Your task to perform on an android device: turn on javascript in the chrome app Image 0: 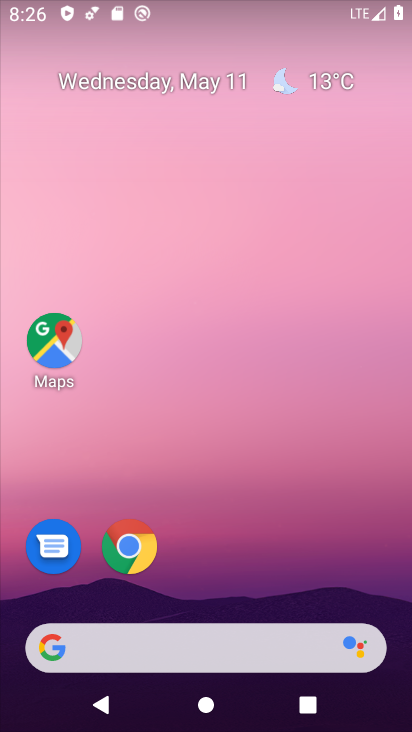
Step 0: click (124, 536)
Your task to perform on an android device: turn on javascript in the chrome app Image 1: 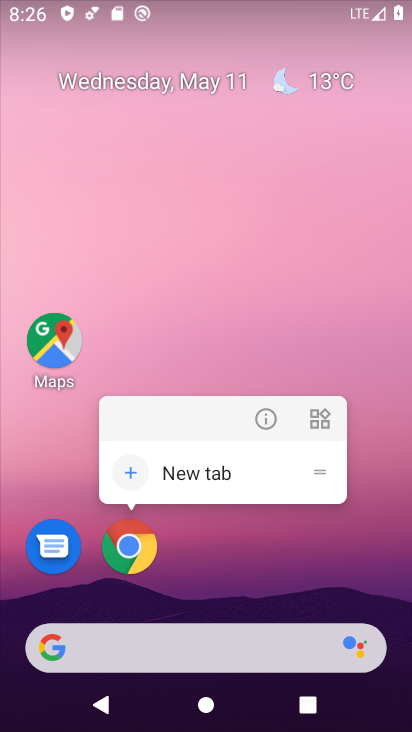
Step 1: click (132, 540)
Your task to perform on an android device: turn on javascript in the chrome app Image 2: 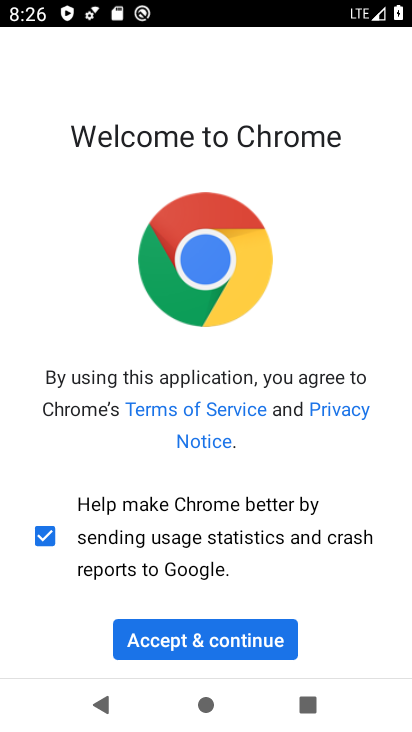
Step 2: click (171, 639)
Your task to perform on an android device: turn on javascript in the chrome app Image 3: 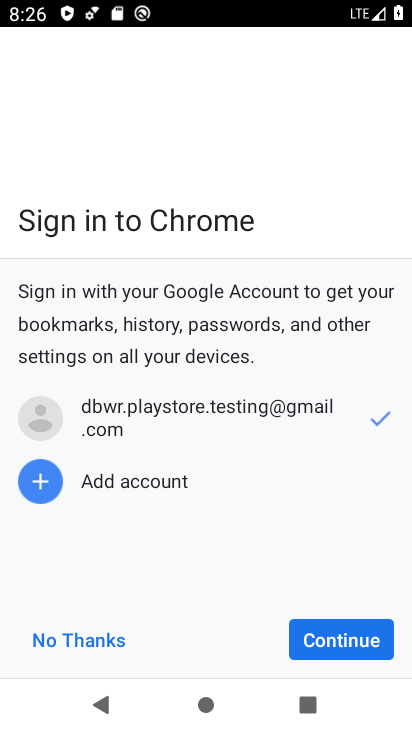
Step 3: click (346, 638)
Your task to perform on an android device: turn on javascript in the chrome app Image 4: 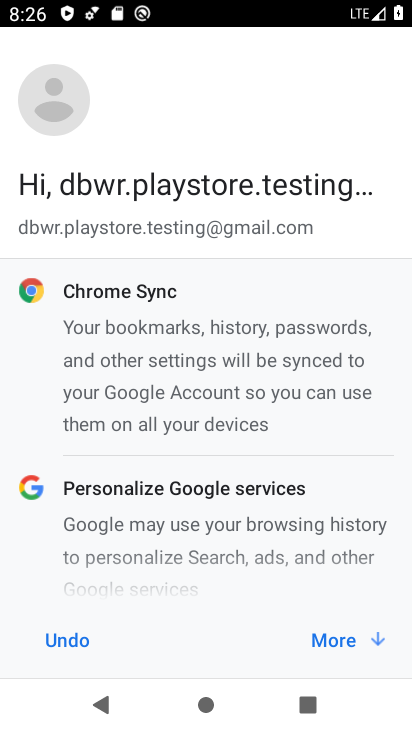
Step 4: click (320, 634)
Your task to perform on an android device: turn on javascript in the chrome app Image 5: 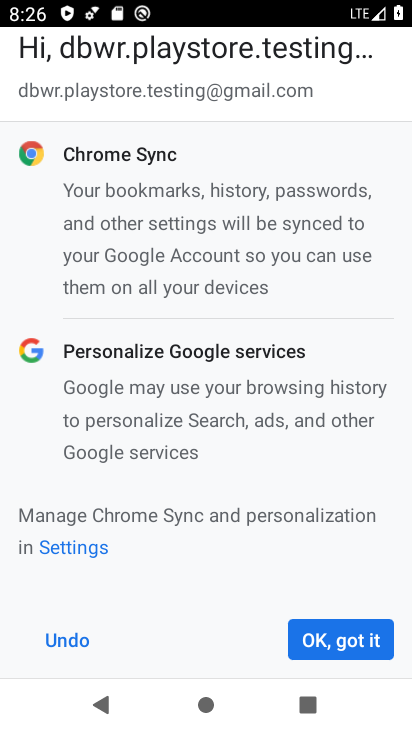
Step 5: click (356, 621)
Your task to perform on an android device: turn on javascript in the chrome app Image 6: 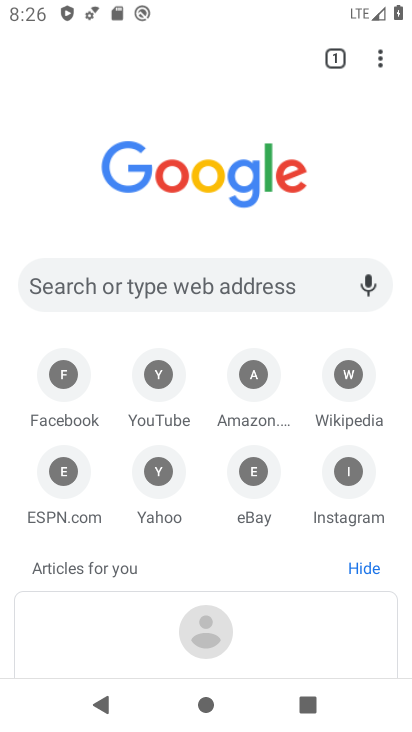
Step 6: drag from (380, 53) to (179, 491)
Your task to perform on an android device: turn on javascript in the chrome app Image 7: 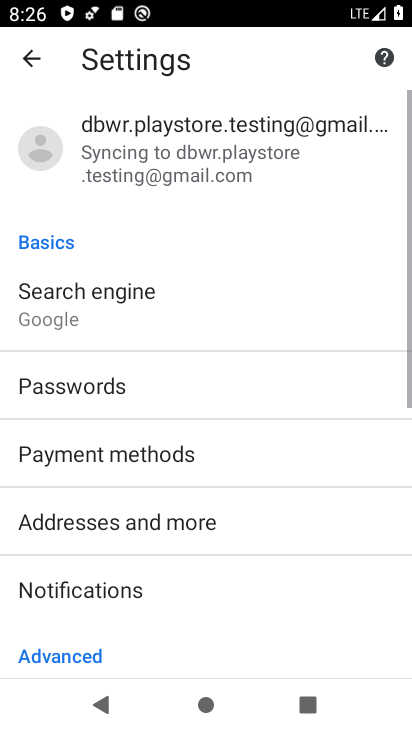
Step 7: drag from (145, 597) to (228, 199)
Your task to perform on an android device: turn on javascript in the chrome app Image 8: 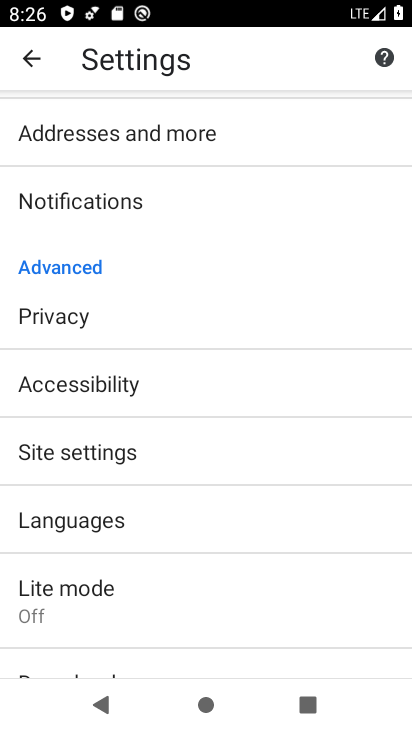
Step 8: click (106, 461)
Your task to perform on an android device: turn on javascript in the chrome app Image 9: 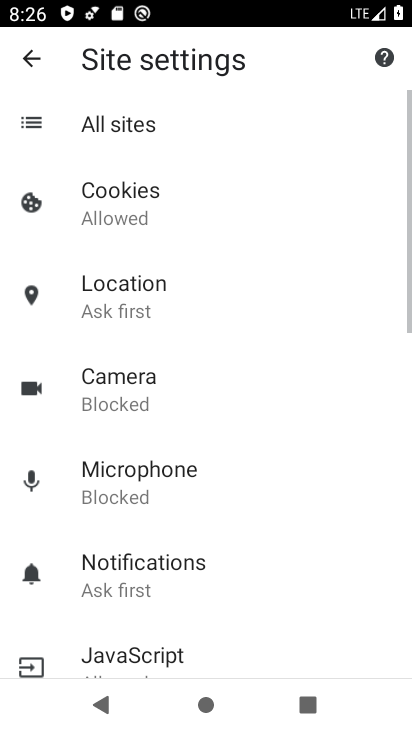
Step 9: click (141, 654)
Your task to perform on an android device: turn on javascript in the chrome app Image 10: 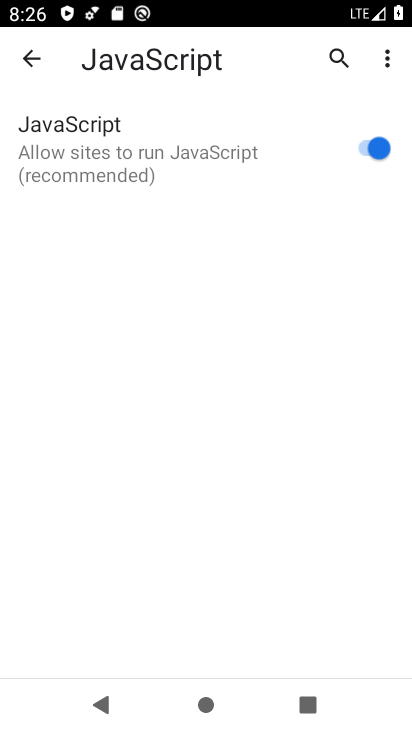
Step 10: task complete